Your task to perform on an android device: Go to Amazon Image 0: 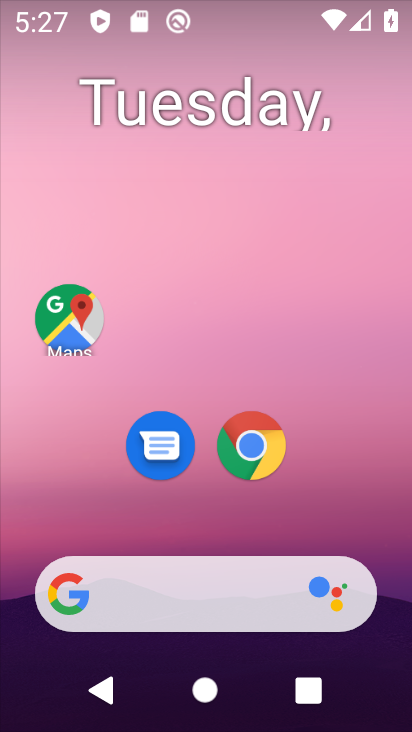
Step 0: drag from (290, 531) to (324, 50)
Your task to perform on an android device: Go to Amazon Image 1: 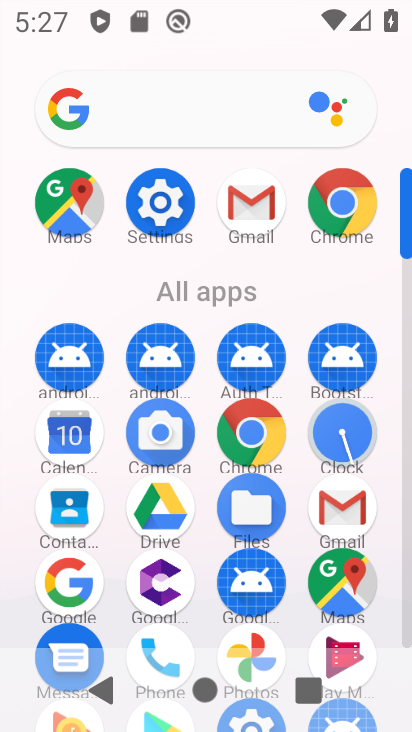
Step 1: click (250, 430)
Your task to perform on an android device: Go to Amazon Image 2: 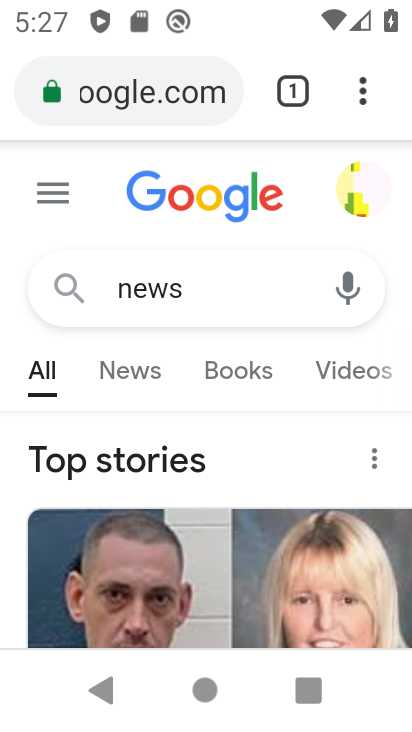
Step 2: drag from (357, 84) to (67, 182)
Your task to perform on an android device: Go to Amazon Image 3: 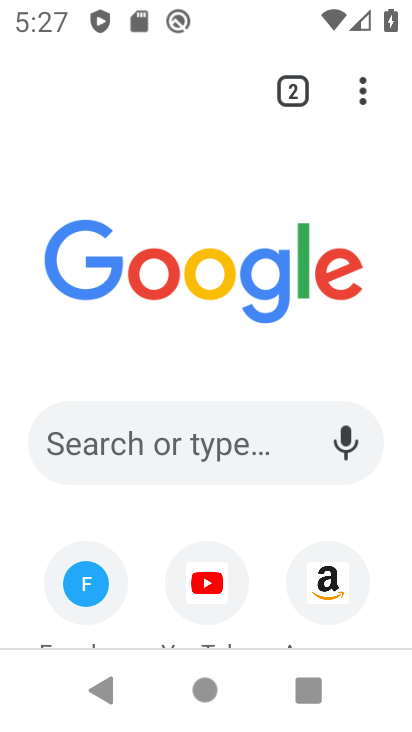
Step 3: click (332, 579)
Your task to perform on an android device: Go to Amazon Image 4: 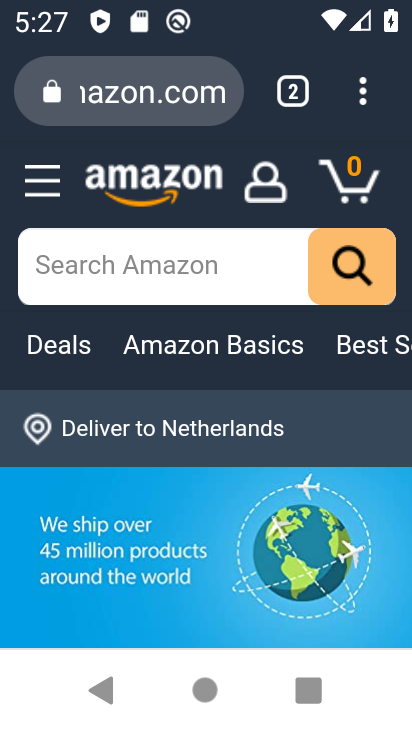
Step 4: task complete